Your task to perform on an android device: open chrome and create a bookmark for the current page Image 0: 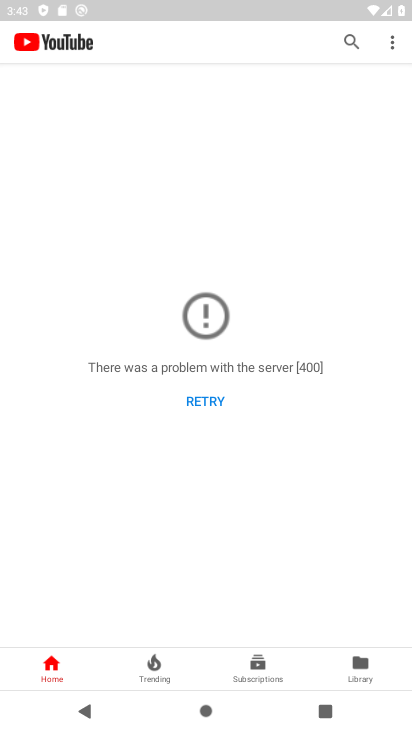
Step 0: press home button
Your task to perform on an android device: open chrome and create a bookmark for the current page Image 1: 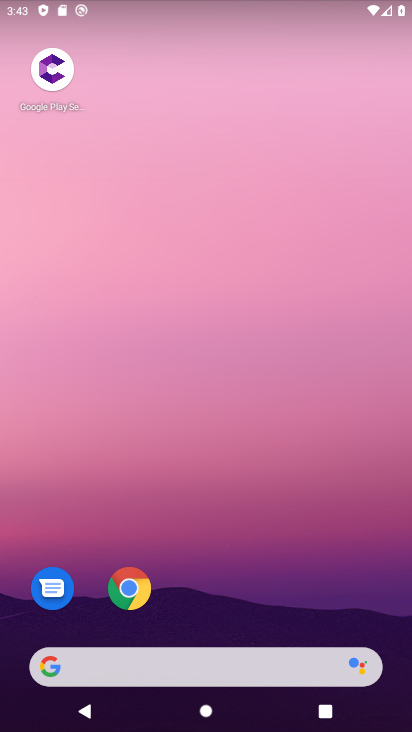
Step 1: click (135, 596)
Your task to perform on an android device: open chrome and create a bookmark for the current page Image 2: 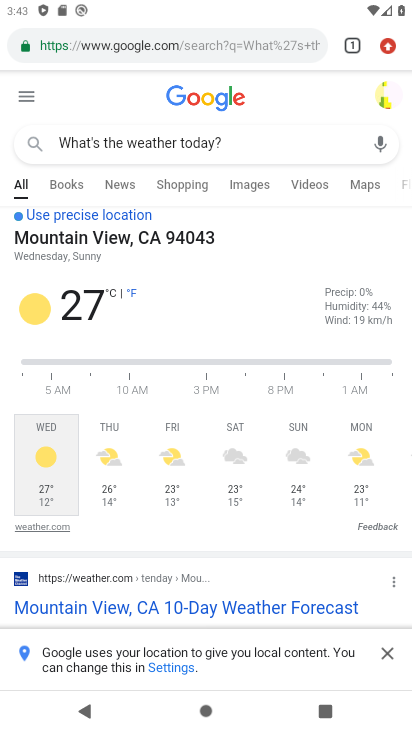
Step 2: click (386, 54)
Your task to perform on an android device: open chrome and create a bookmark for the current page Image 3: 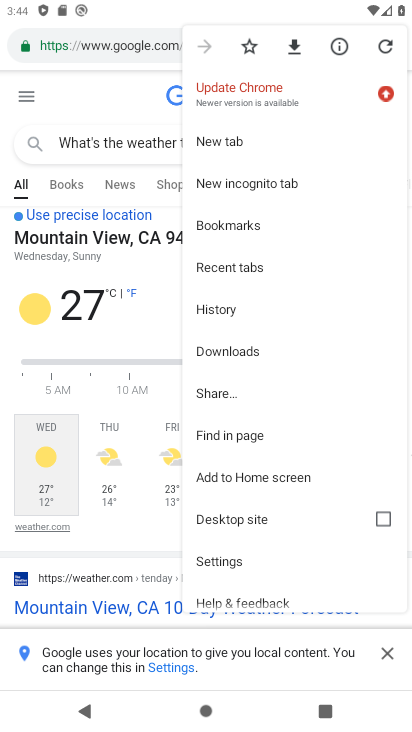
Step 3: click (249, 48)
Your task to perform on an android device: open chrome and create a bookmark for the current page Image 4: 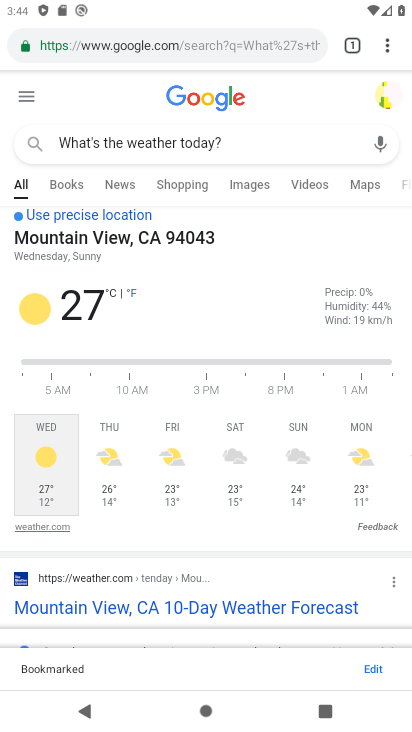
Step 4: task complete